Your task to perform on an android device: set the timer Image 0: 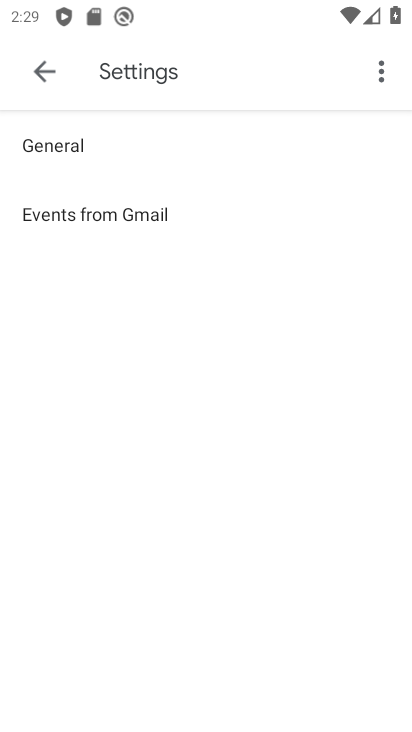
Step 0: press home button
Your task to perform on an android device: set the timer Image 1: 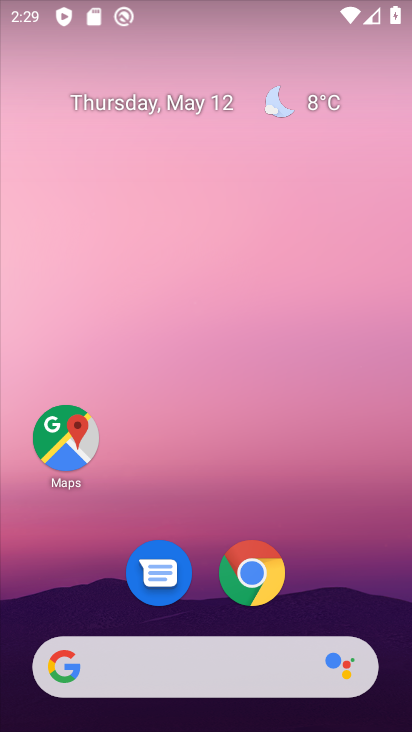
Step 1: drag from (331, 581) to (384, 120)
Your task to perform on an android device: set the timer Image 2: 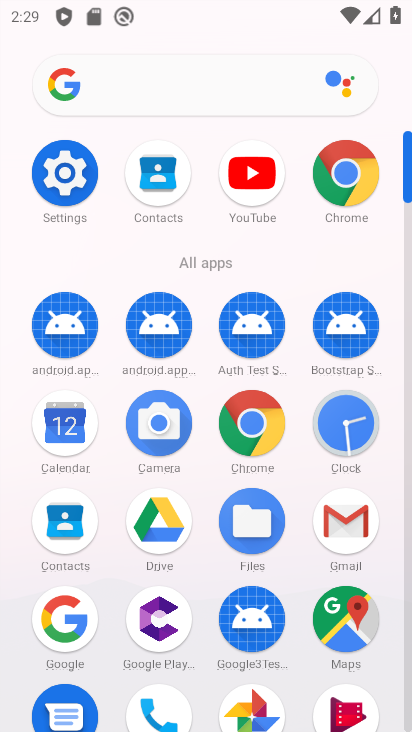
Step 2: click (341, 428)
Your task to perform on an android device: set the timer Image 3: 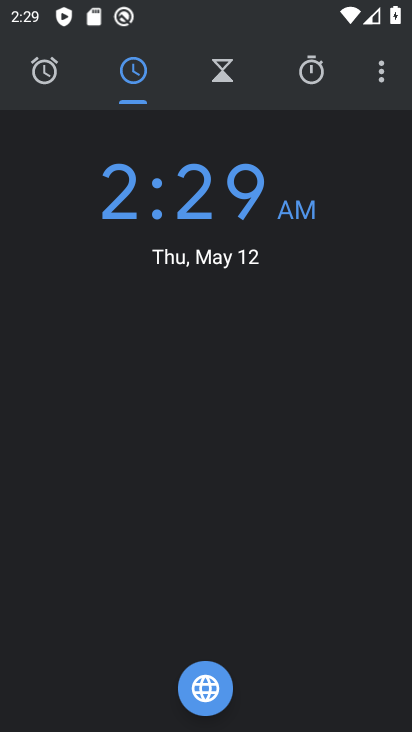
Step 3: click (225, 73)
Your task to perform on an android device: set the timer Image 4: 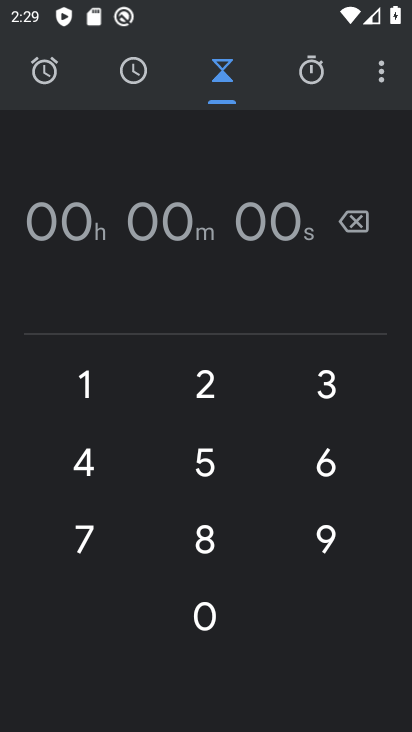
Step 4: click (90, 384)
Your task to perform on an android device: set the timer Image 5: 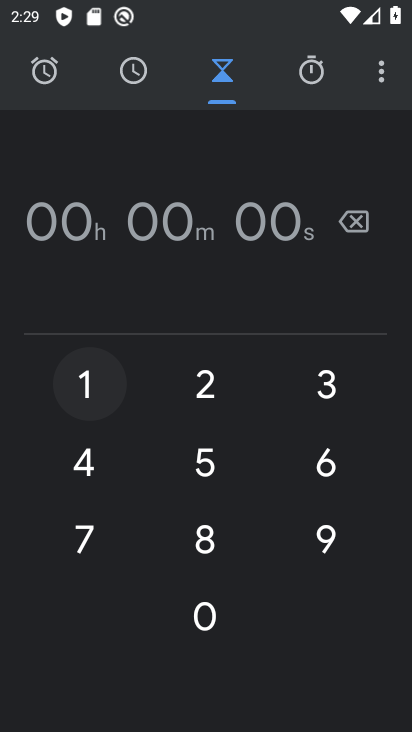
Step 5: click (90, 384)
Your task to perform on an android device: set the timer Image 6: 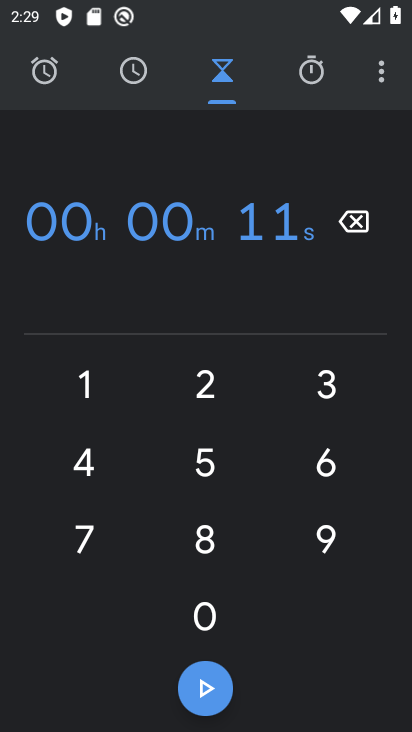
Step 6: click (206, 473)
Your task to perform on an android device: set the timer Image 7: 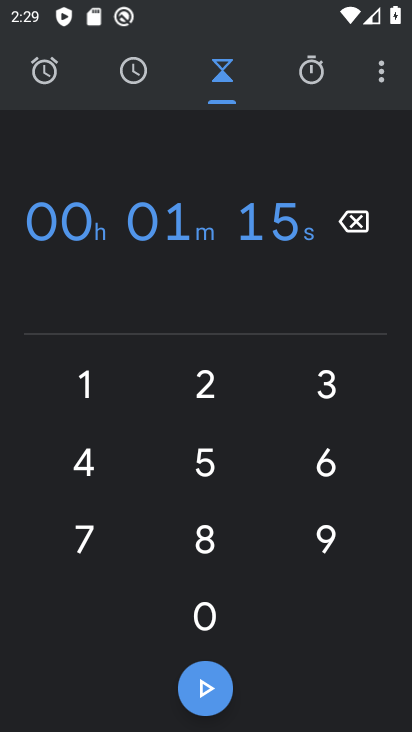
Step 7: click (321, 402)
Your task to perform on an android device: set the timer Image 8: 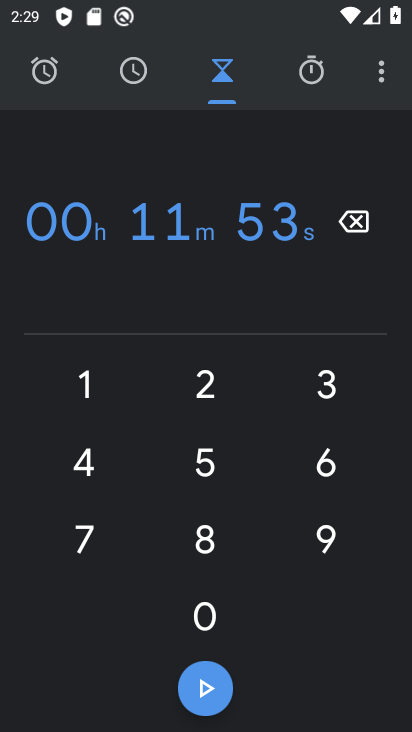
Step 8: click (179, 681)
Your task to perform on an android device: set the timer Image 9: 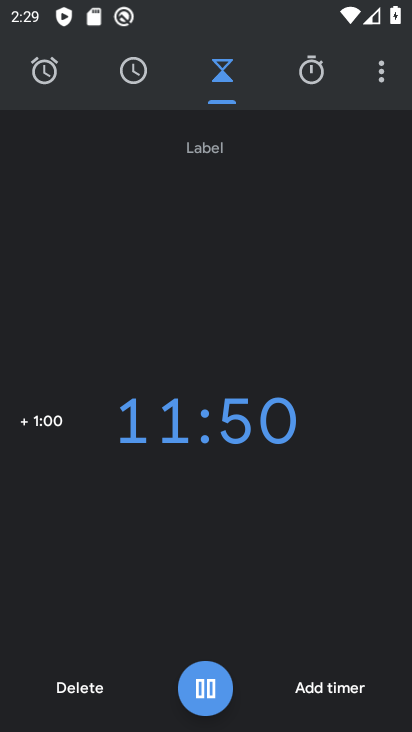
Step 9: task complete